Your task to perform on an android device: turn off picture-in-picture Image 0: 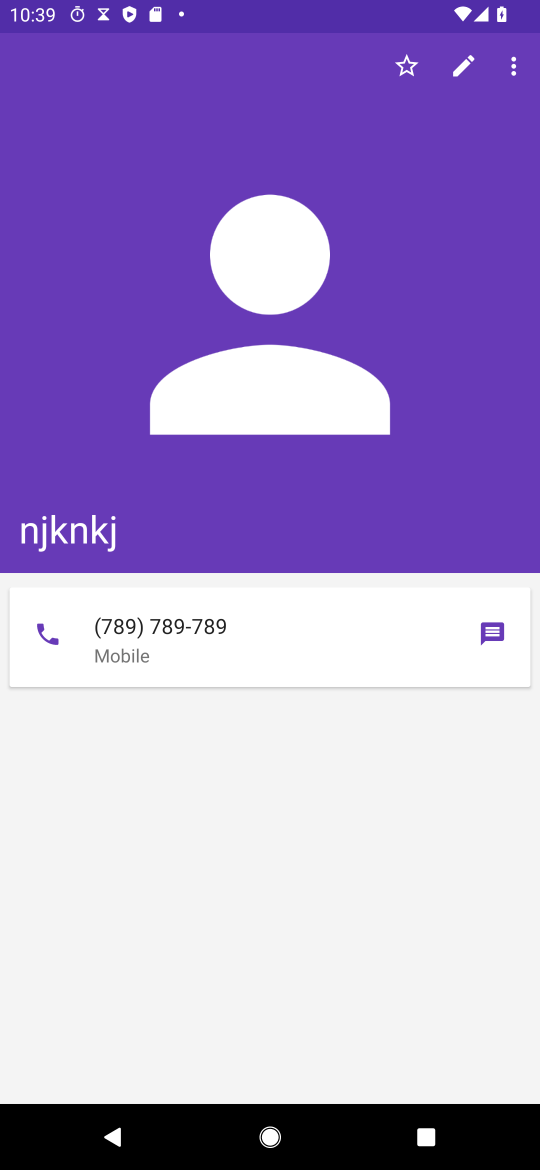
Step 0: press back button
Your task to perform on an android device: turn off picture-in-picture Image 1: 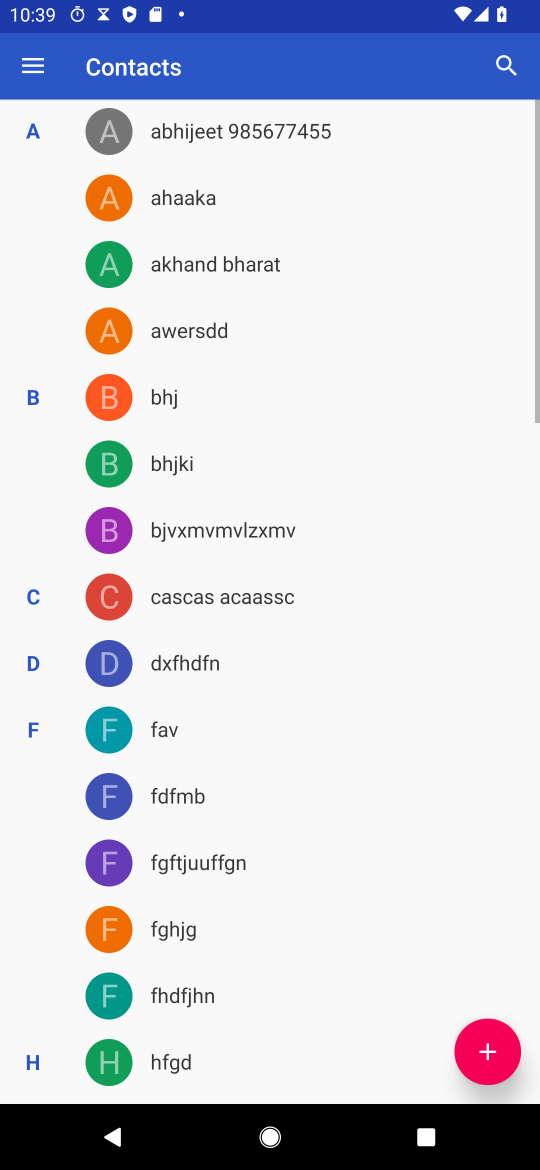
Step 1: press home button
Your task to perform on an android device: turn off picture-in-picture Image 2: 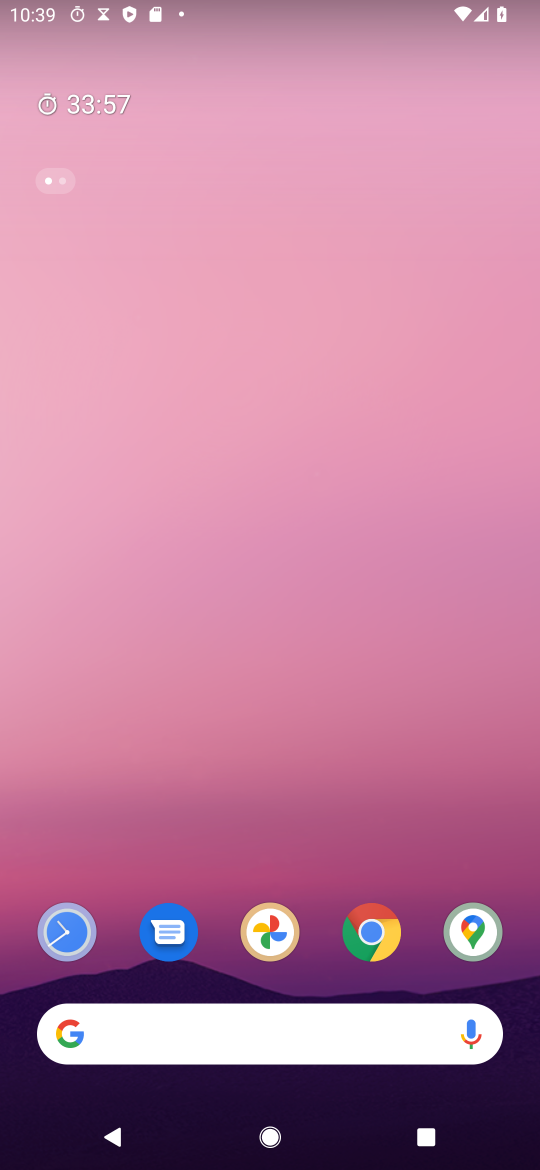
Step 2: click (396, 943)
Your task to perform on an android device: turn off picture-in-picture Image 3: 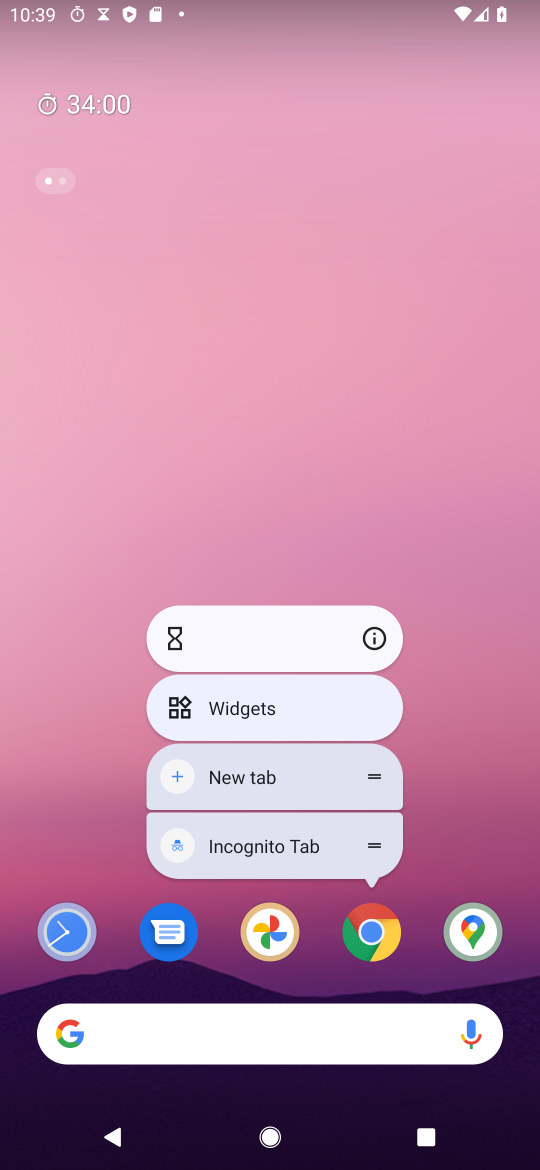
Step 3: click (371, 631)
Your task to perform on an android device: turn off picture-in-picture Image 4: 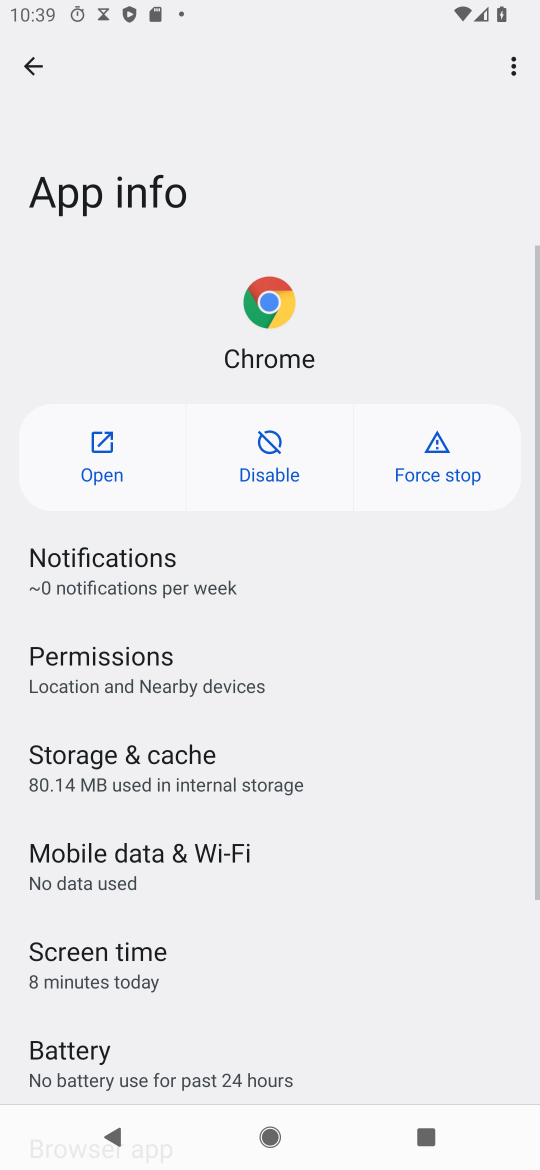
Step 4: drag from (327, 1026) to (200, 166)
Your task to perform on an android device: turn off picture-in-picture Image 5: 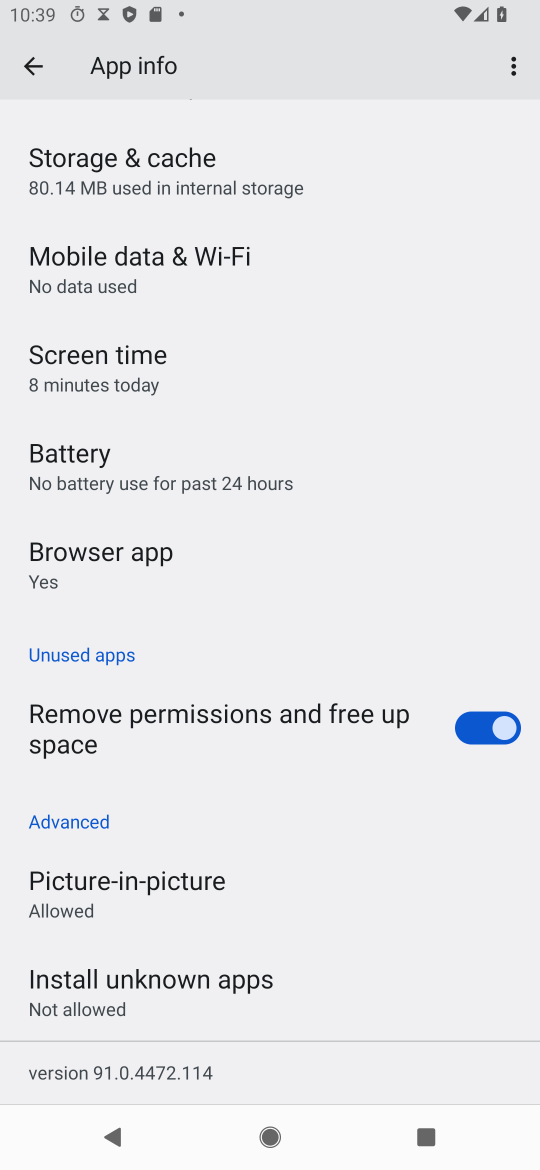
Step 5: click (264, 881)
Your task to perform on an android device: turn off picture-in-picture Image 6: 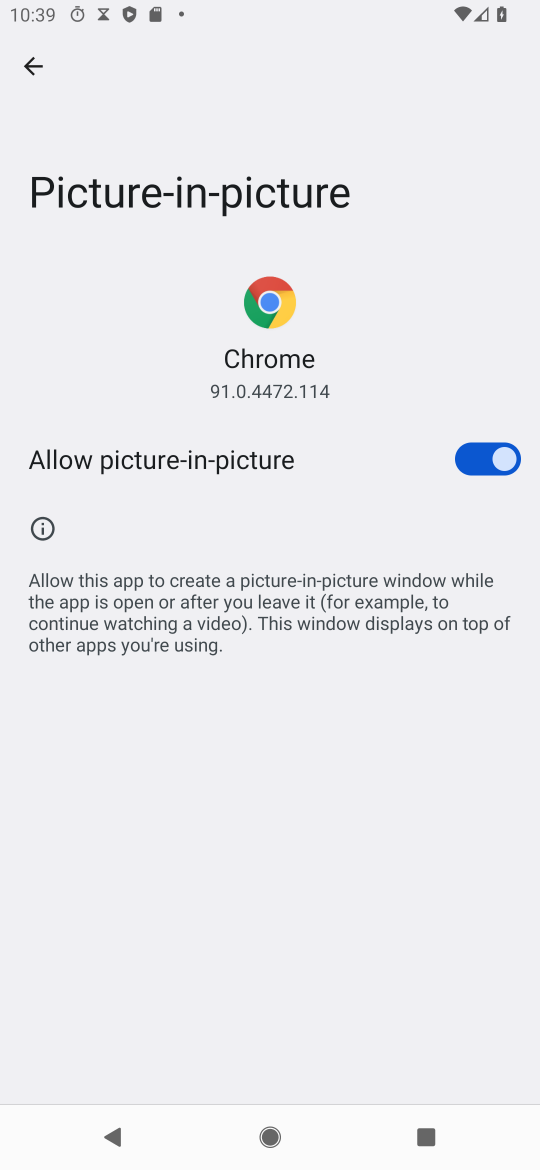
Step 6: click (479, 466)
Your task to perform on an android device: turn off picture-in-picture Image 7: 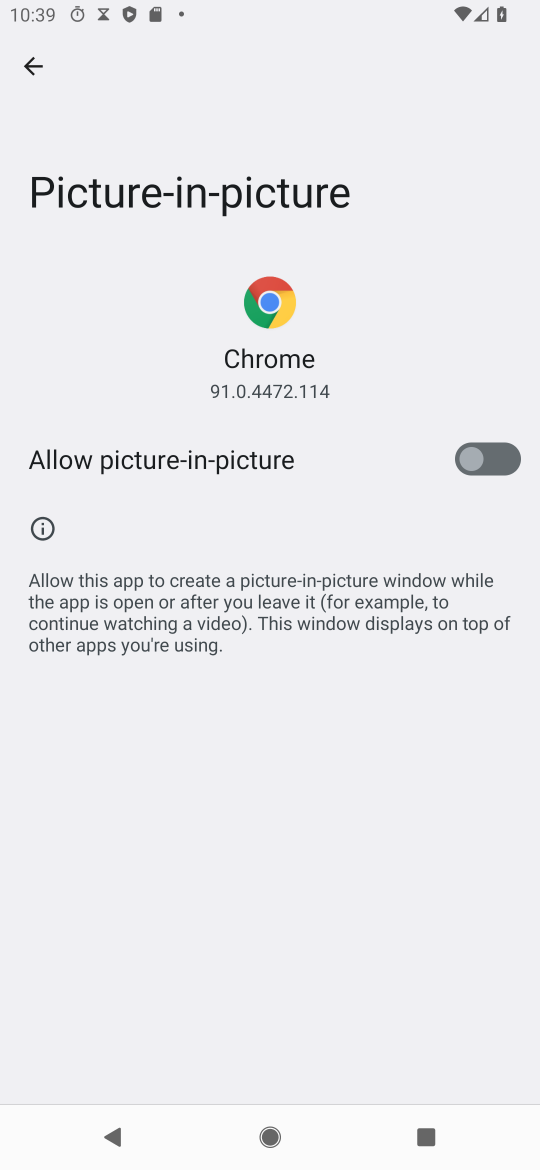
Step 7: task complete